Your task to perform on an android device: turn off notifications settings in the gmail app Image 0: 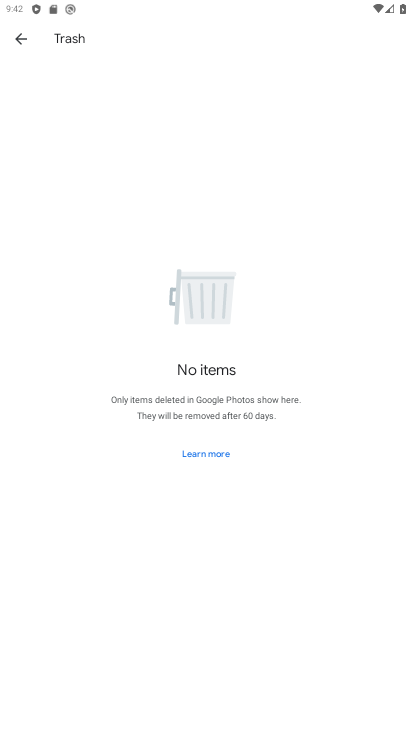
Step 0: press home button
Your task to perform on an android device: turn off notifications settings in the gmail app Image 1: 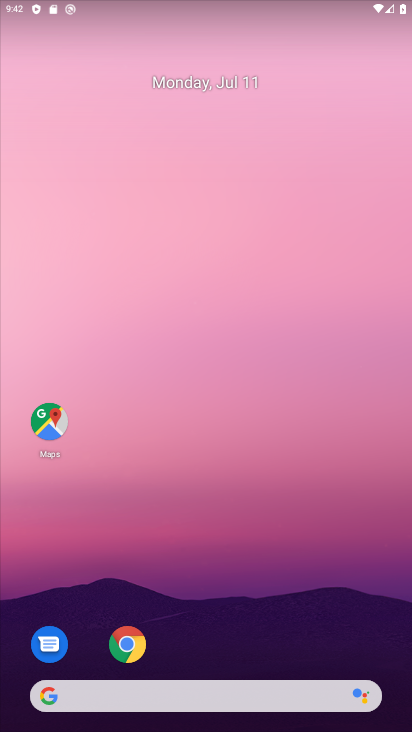
Step 1: drag from (217, 629) to (155, 272)
Your task to perform on an android device: turn off notifications settings in the gmail app Image 2: 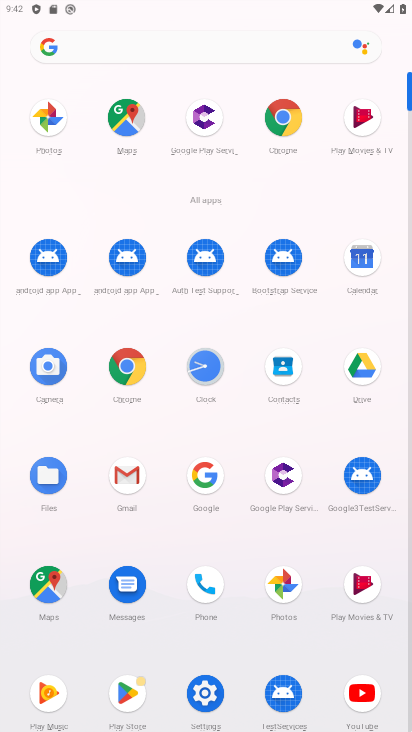
Step 2: click (133, 476)
Your task to perform on an android device: turn off notifications settings in the gmail app Image 3: 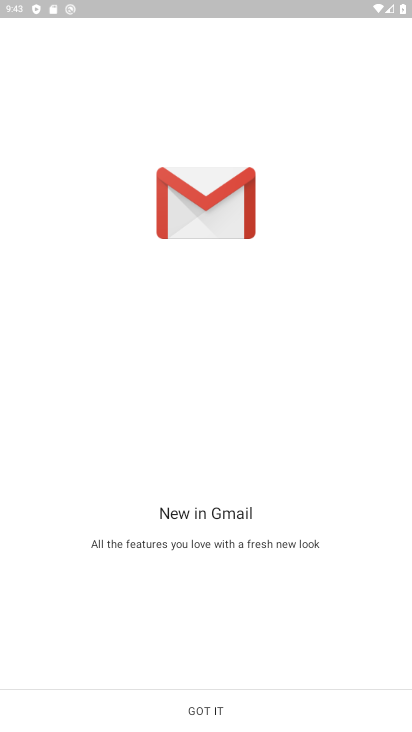
Step 3: click (277, 701)
Your task to perform on an android device: turn off notifications settings in the gmail app Image 4: 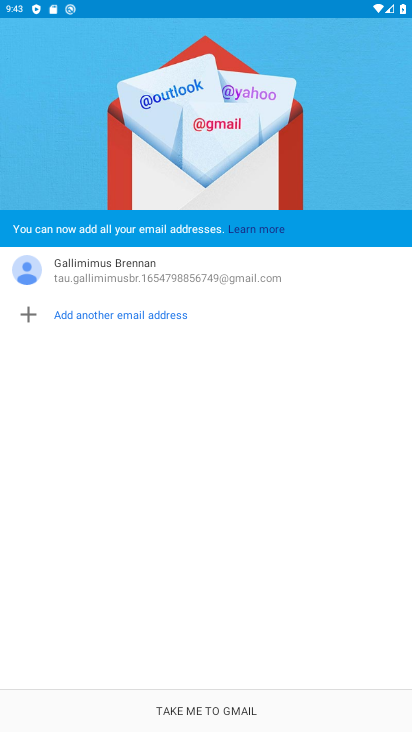
Step 4: click (277, 701)
Your task to perform on an android device: turn off notifications settings in the gmail app Image 5: 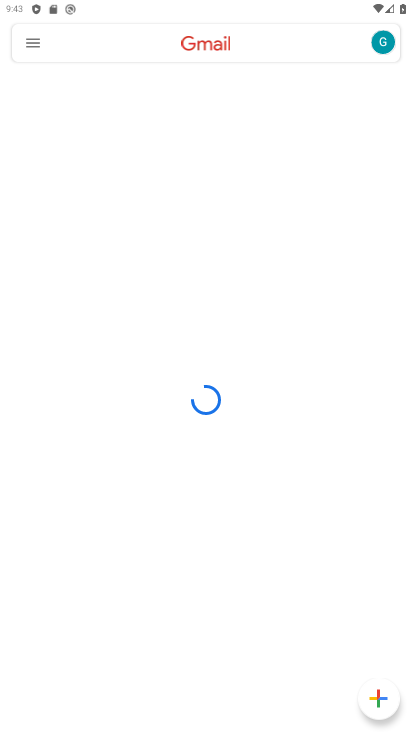
Step 5: click (31, 44)
Your task to perform on an android device: turn off notifications settings in the gmail app Image 6: 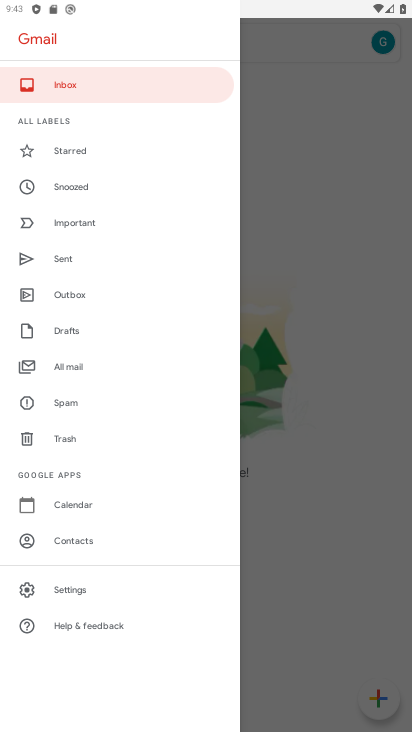
Step 6: click (77, 592)
Your task to perform on an android device: turn off notifications settings in the gmail app Image 7: 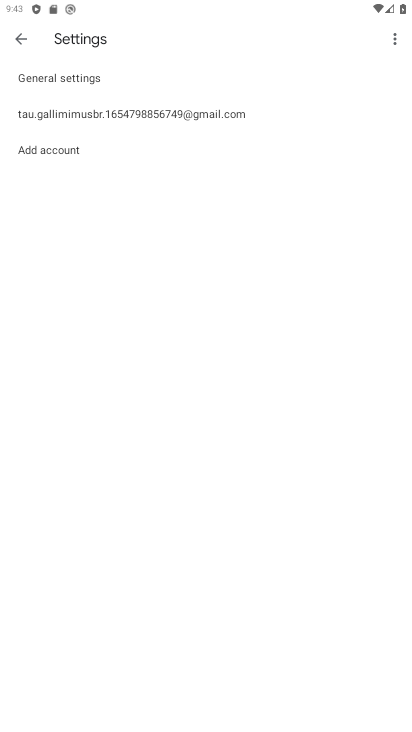
Step 7: click (87, 116)
Your task to perform on an android device: turn off notifications settings in the gmail app Image 8: 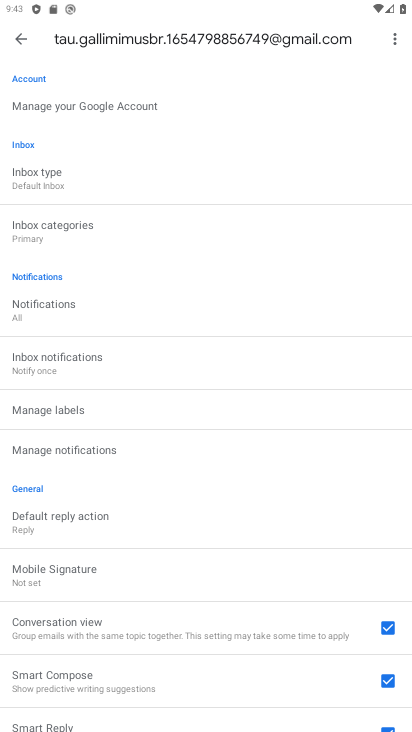
Step 8: click (48, 452)
Your task to perform on an android device: turn off notifications settings in the gmail app Image 9: 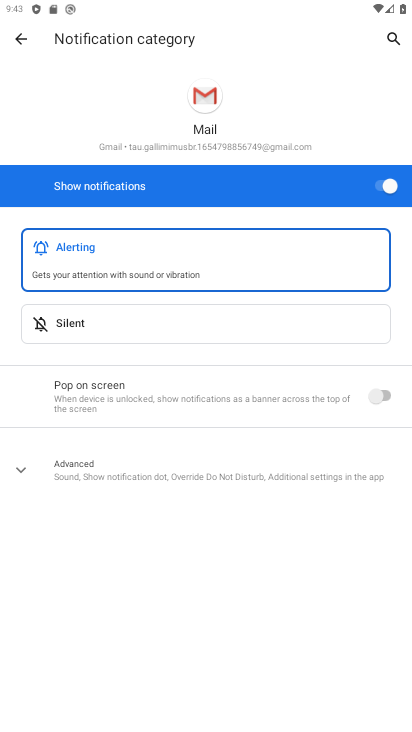
Step 9: click (382, 179)
Your task to perform on an android device: turn off notifications settings in the gmail app Image 10: 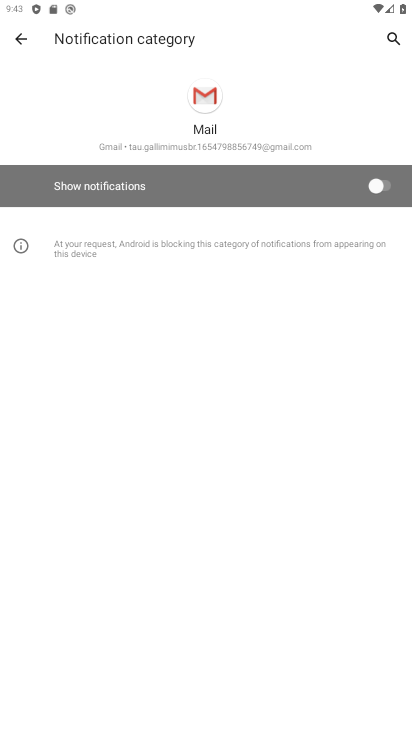
Step 10: task complete